Your task to perform on an android device: Go to accessibility settings Image 0: 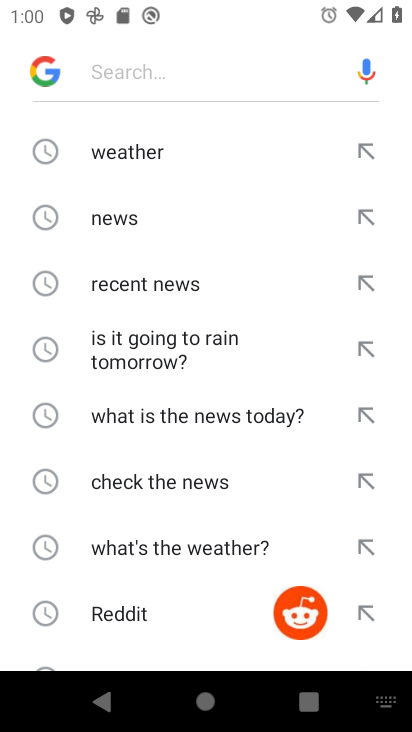
Step 0: press home button
Your task to perform on an android device: Go to accessibility settings Image 1: 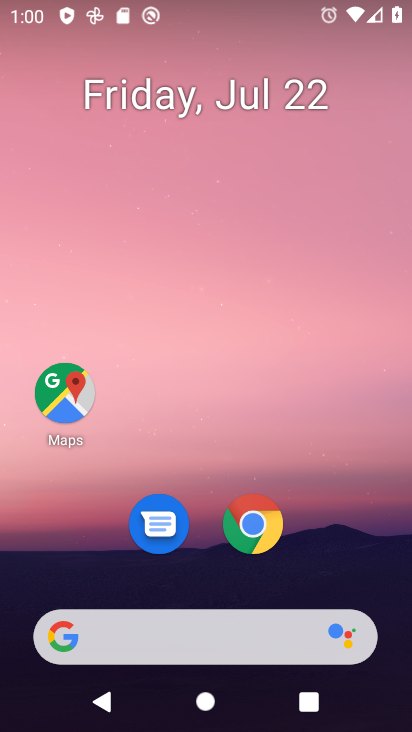
Step 1: drag from (174, 636) to (280, 94)
Your task to perform on an android device: Go to accessibility settings Image 2: 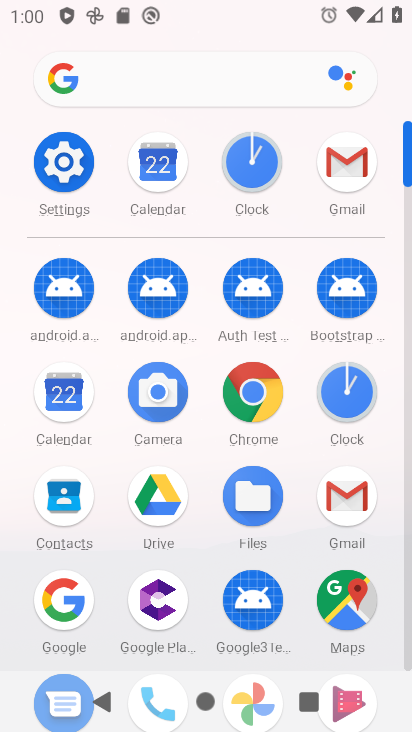
Step 2: click (70, 158)
Your task to perform on an android device: Go to accessibility settings Image 3: 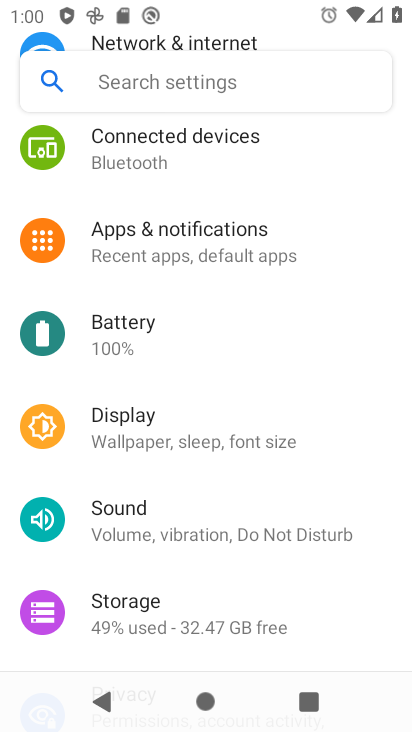
Step 3: drag from (189, 611) to (345, 95)
Your task to perform on an android device: Go to accessibility settings Image 4: 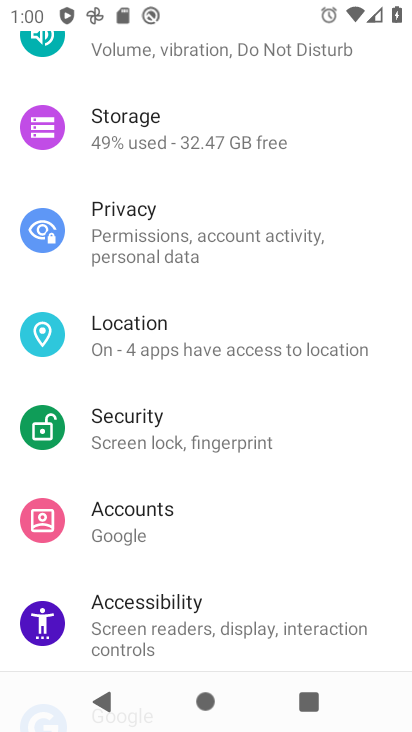
Step 4: click (177, 604)
Your task to perform on an android device: Go to accessibility settings Image 5: 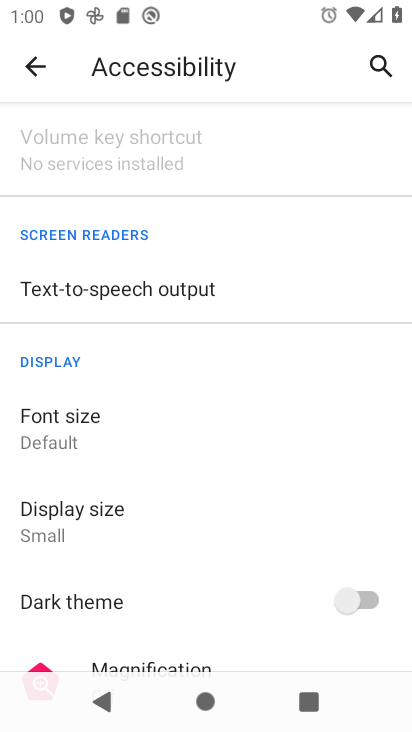
Step 5: task complete